Your task to perform on an android device: open chrome privacy settings Image 0: 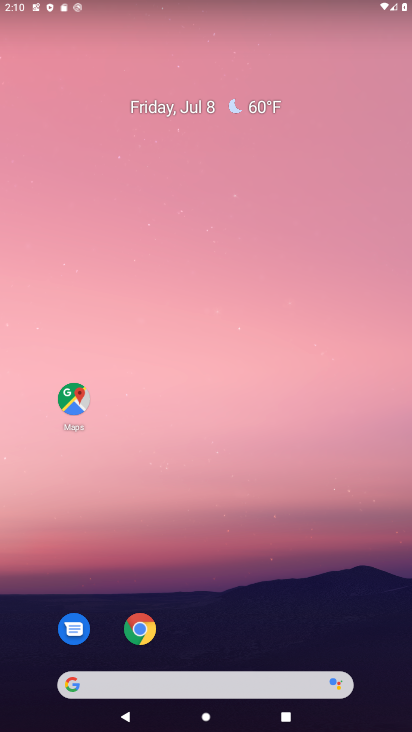
Step 0: drag from (227, 615) to (212, 286)
Your task to perform on an android device: open chrome privacy settings Image 1: 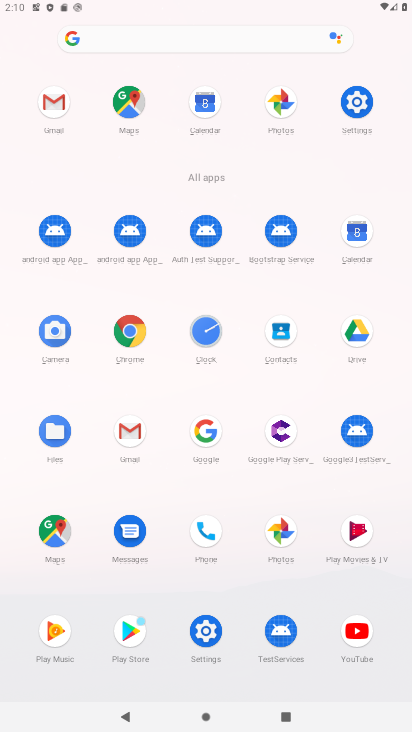
Step 1: click (116, 335)
Your task to perform on an android device: open chrome privacy settings Image 2: 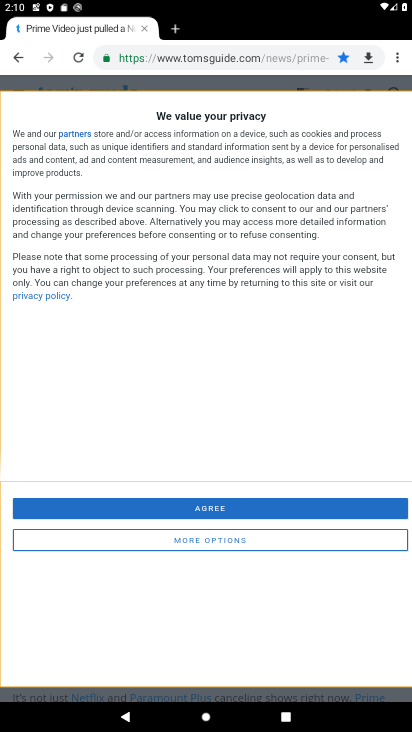
Step 2: click (392, 58)
Your task to perform on an android device: open chrome privacy settings Image 3: 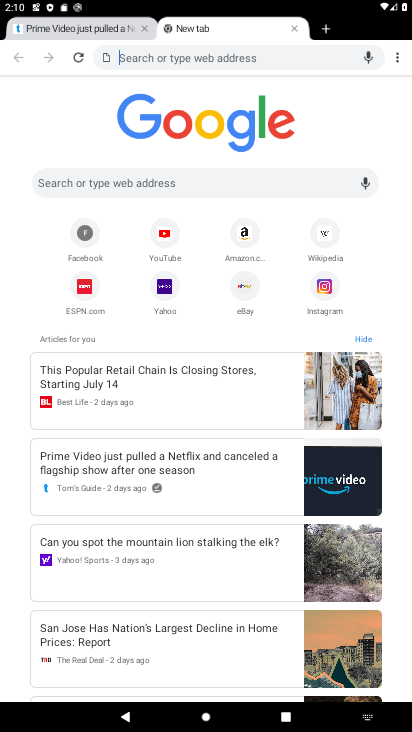
Step 3: drag from (393, 59) to (288, 264)
Your task to perform on an android device: open chrome privacy settings Image 4: 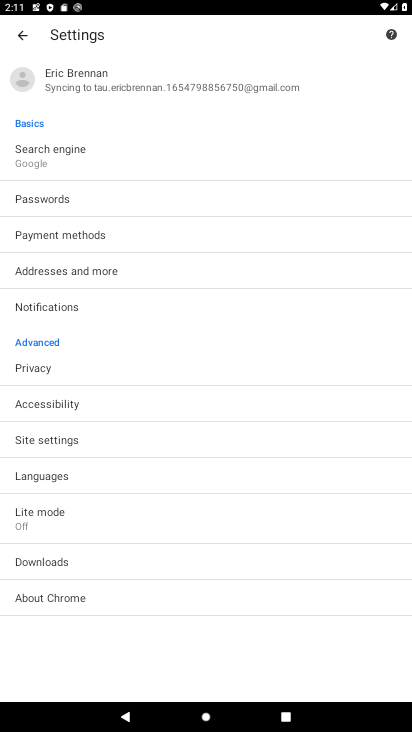
Step 4: click (90, 365)
Your task to perform on an android device: open chrome privacy settings Image 5: 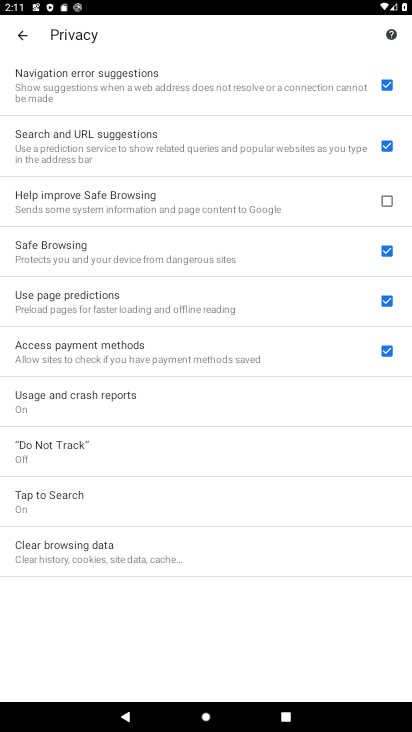
Step 5: task complete